Your task to perform on an android device: Open calendar and show me the fourth week of next month Image 0: 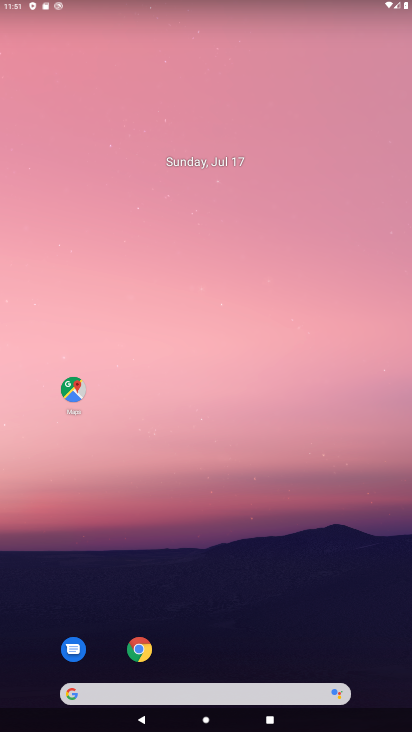
Step 0: drag from (39, 622) to (115, 243)
Your task to perform on an android device: Open calendar and show me the fourth week of next month Image 1: 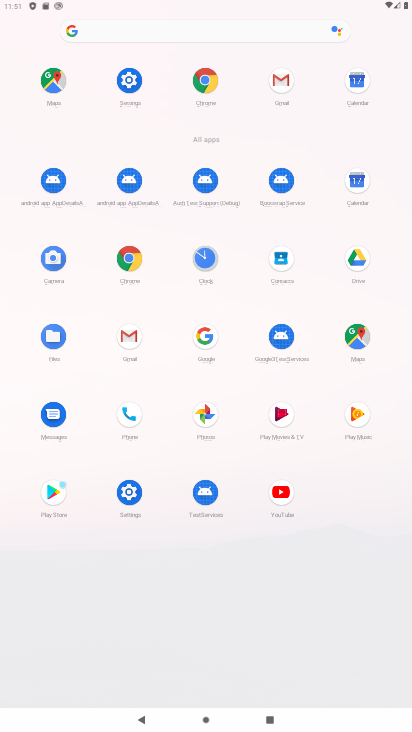
Step 1: click (353, 105)
Your task to perform on an android device: Open calendar and show me the fourth week of next month Image 2: 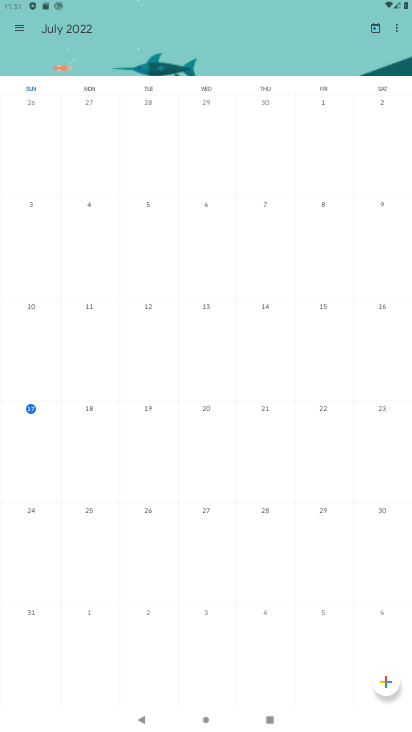
Step 2: drag from (349, 234) to (13, 241)
Your task to perform on an android device: Open calendar and show me the fourth week of next month Image 3: 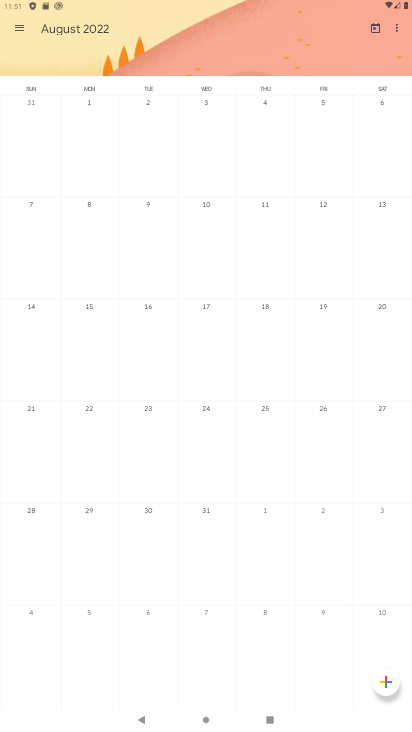
Step 3: click (88, 515)
Your task to perform on an android device: Open calendar and show me the fourth week of next month Image 4: 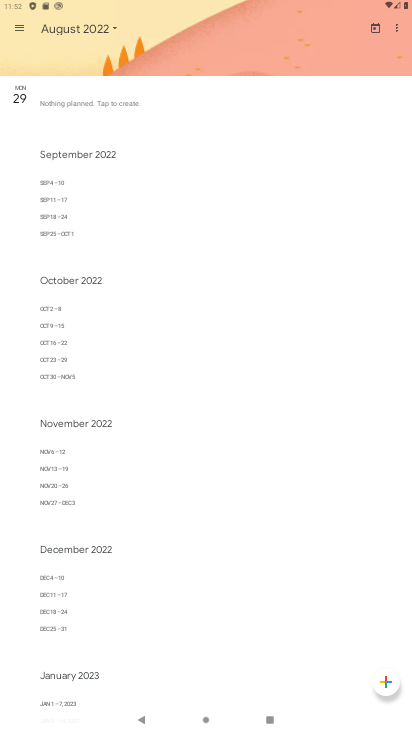
Step 4: task complete